Your task to perform on an android device: install app "Gmail" Image 0: 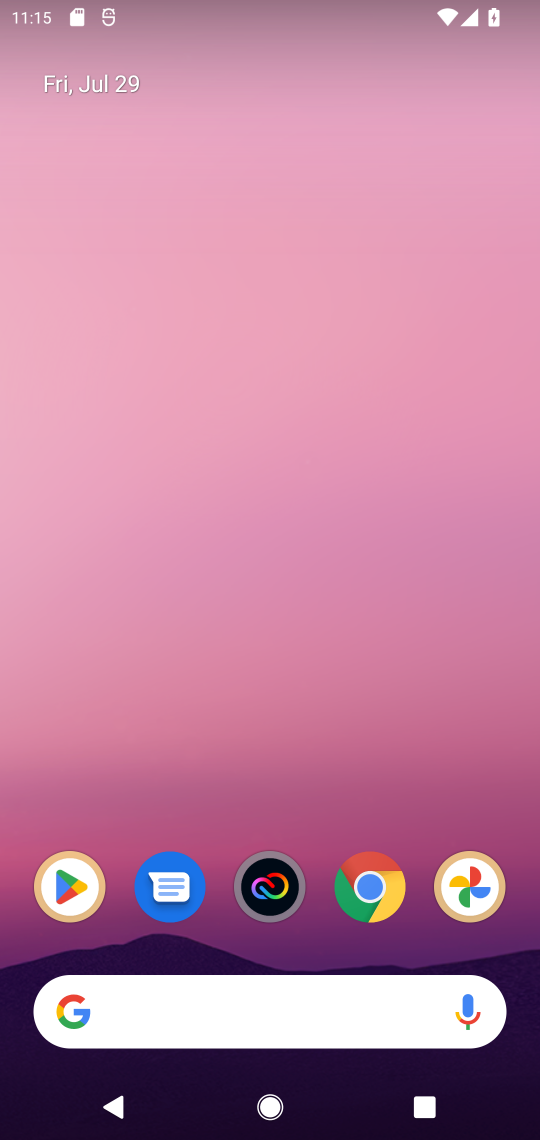
Step 0: drag from (204, 1019) to (315, 154)
Your task to perform on an android device: install app "Gmail" Image 1: 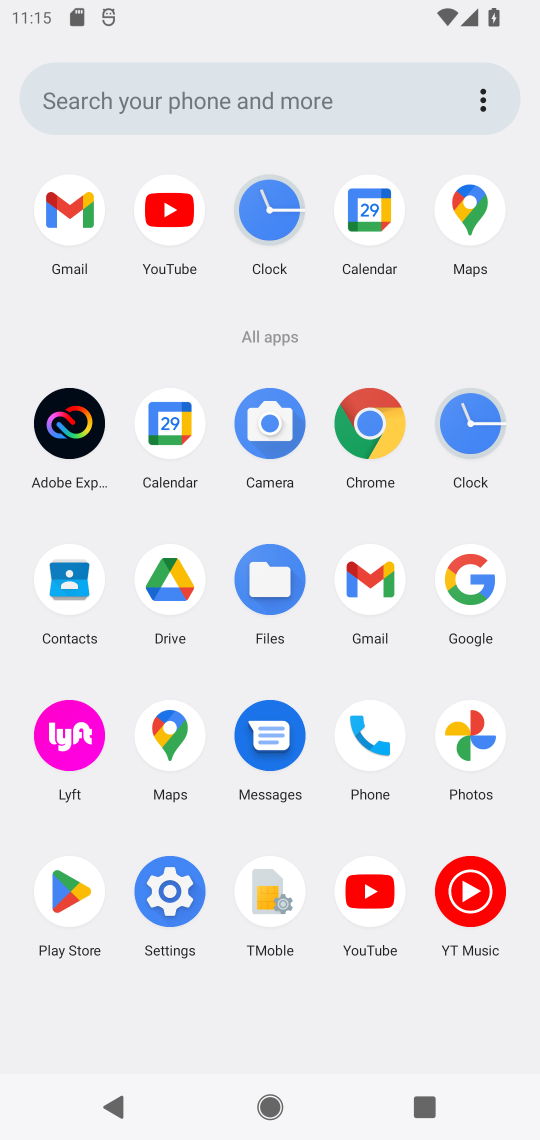
Step 1: drag from (303, 823) to (368, 668)
Your task to perform on an android device: install app "Gmail" Image 2: 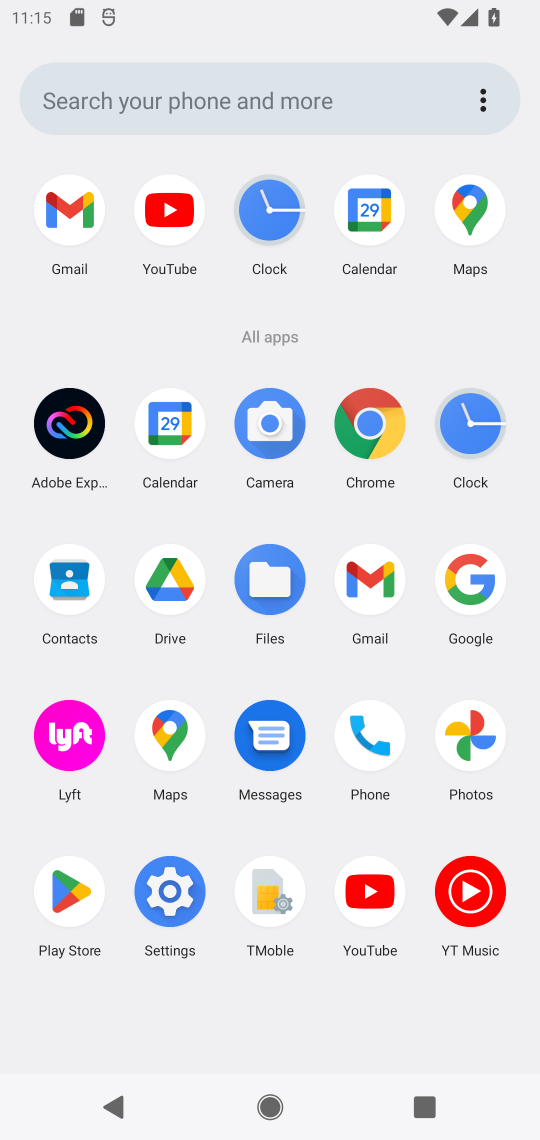
Step 2: click (69, 891)
Your task to perform on an android device: install app "Gmail" Image 3: 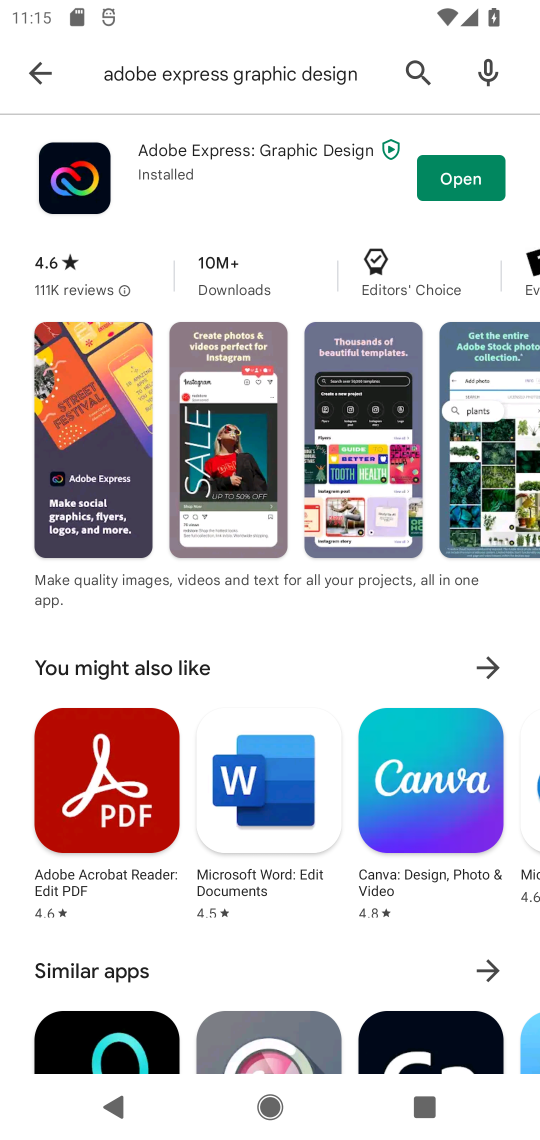
Step 3: click (411, 68)
Your task to perform on an android device: install app "Gmail" Image 4: 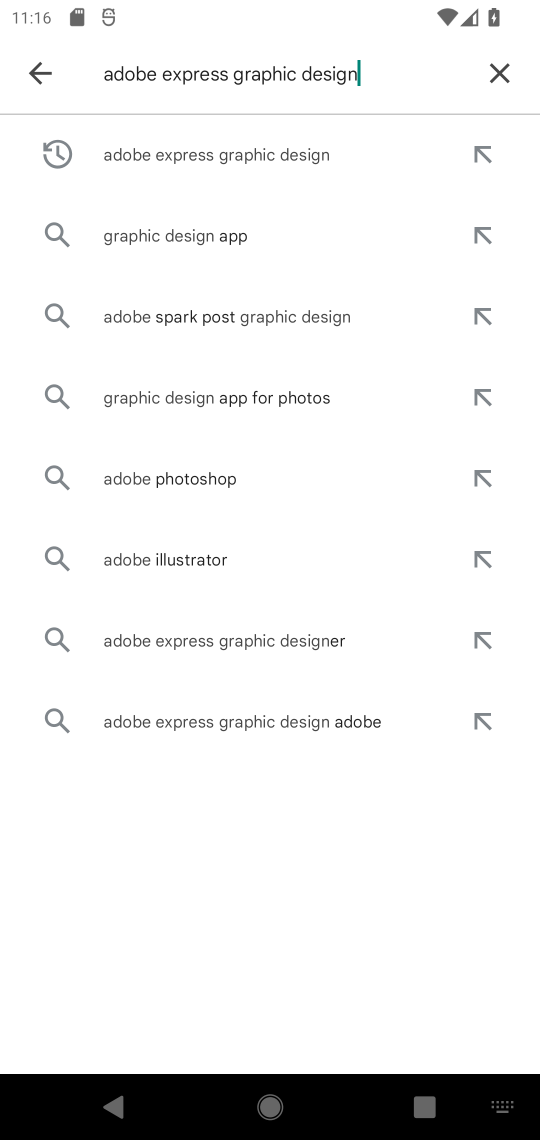
Step 4: click (498, 77)
Your task to perform on an android device: install app "Gmail" Image 5: 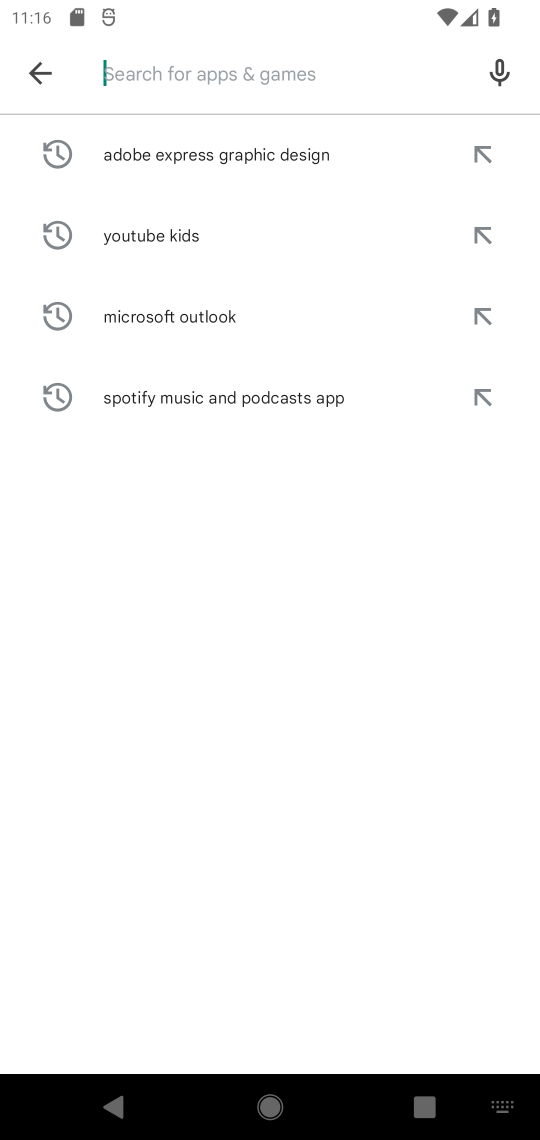
Step 5: type "Gmail"
Your task to perform on an android device: install app "Gmail" Image 6: 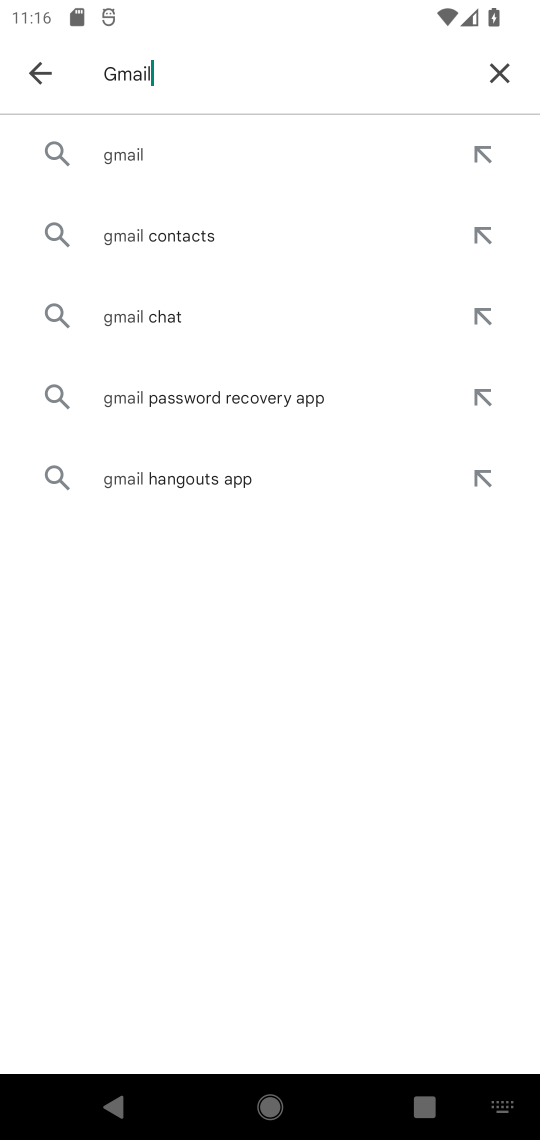
Step 6: click (133, 161)
Your task to perform on an android device: install app "Gmail" Image 7: 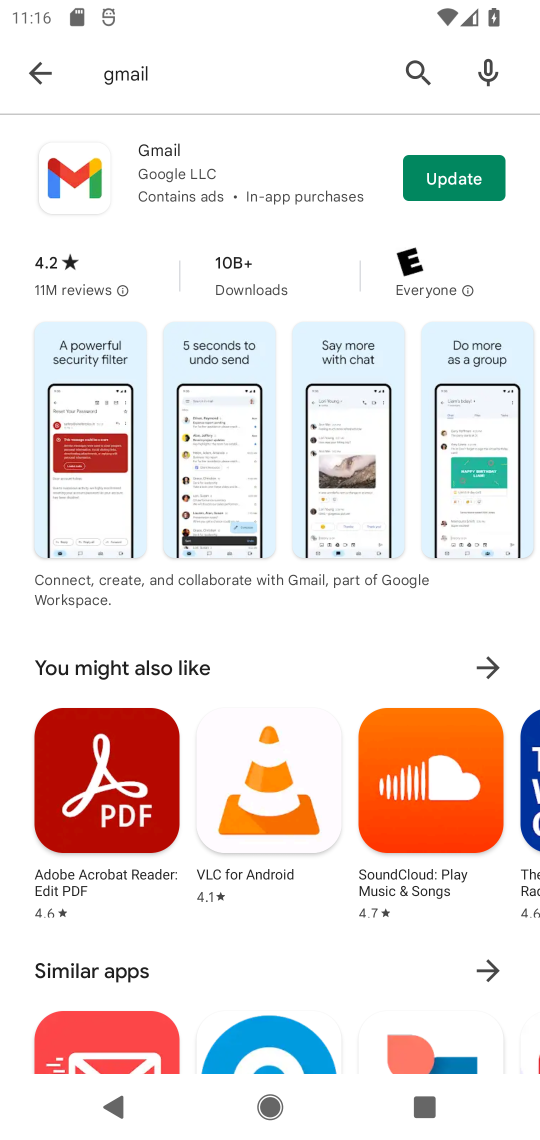
Step 7: click (161, 144)
Your task to perform on an android device: install app "Gmail" Image 8: 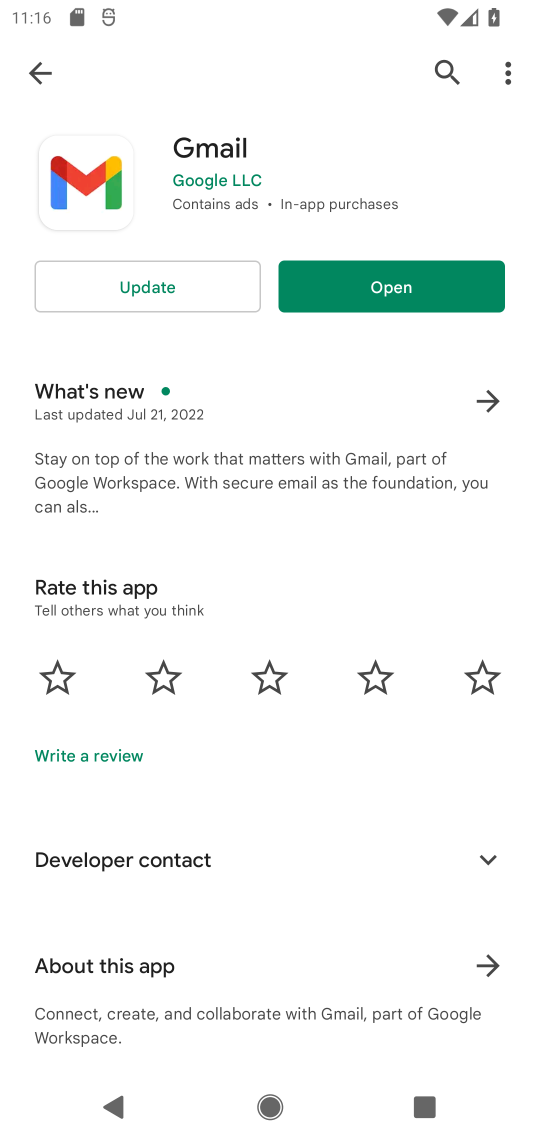
Step 8: task complete